Your task to perform on an android device: make emails show in primary in the gmail app Image 0: 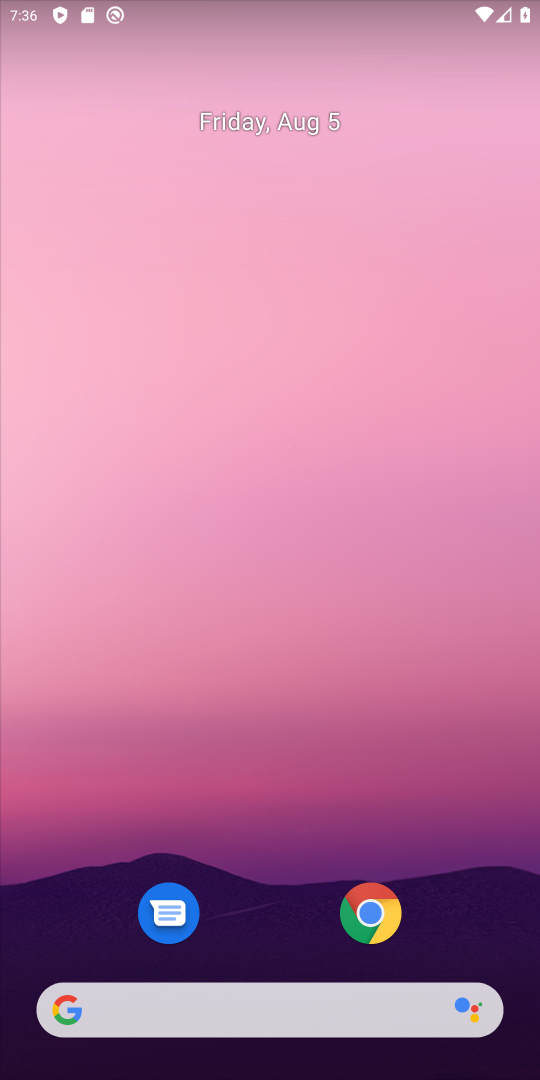
Step 0: press home button
Your task to perform on an android device: make emails show in primary in the gmail app Image 1: 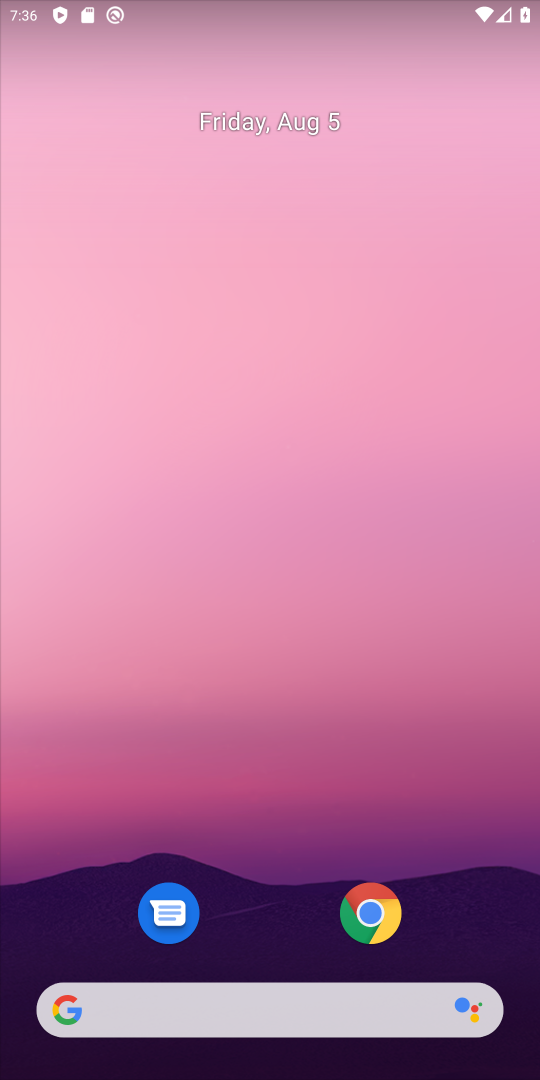
Step 1: drag from (491, 891) to (496, 353)
Your task to perform on an android device: make emails show in primary in the gmail app Image 2: 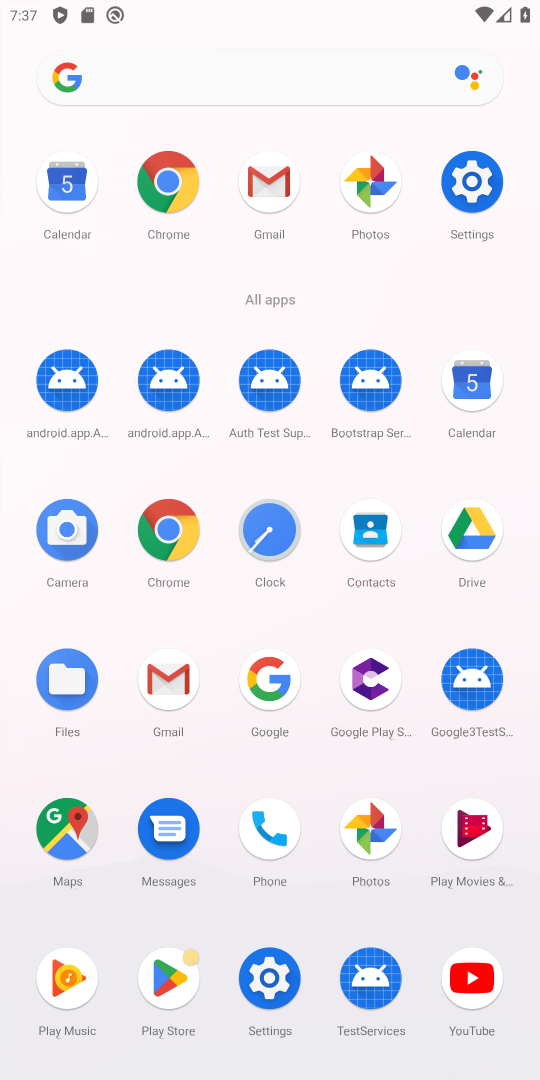
Step 2: click (274, 176)
Your task to perform on an android device: make emails show in primary in the gmail app Image 3: 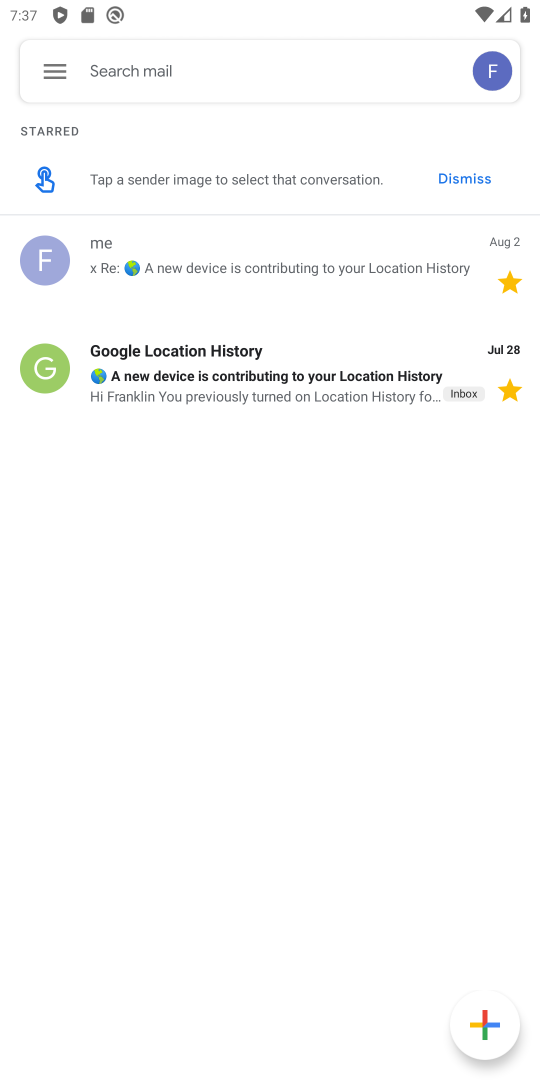
Step 3: click (51, 63)
Your task to perform on an android device: make emails show in primary in the gmail app Image 4: 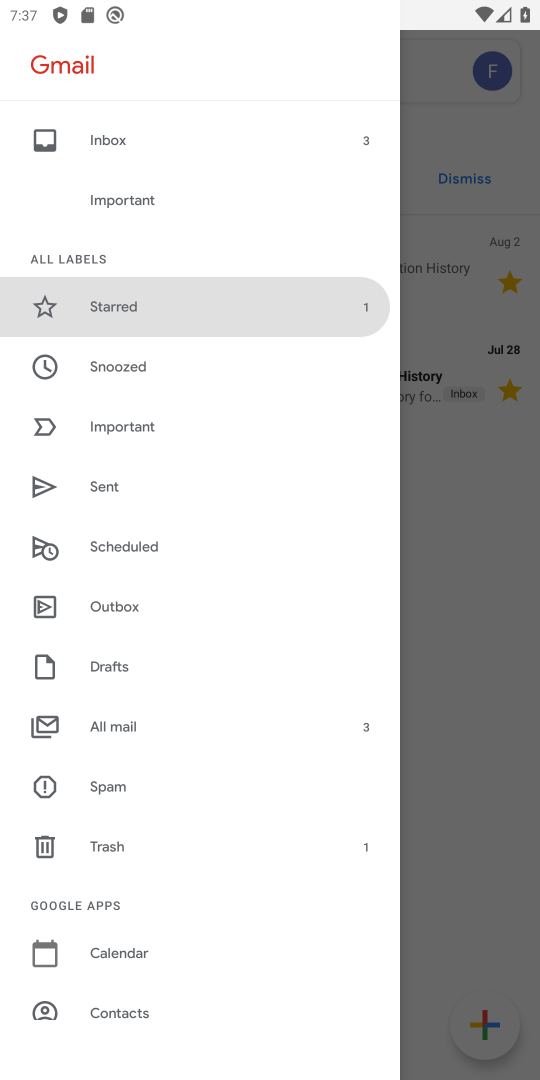
Step 4: drag from (259, 564) to (279, 469)
Your task to perform on an android device: make emails show in primary in the gmail app Image 5: 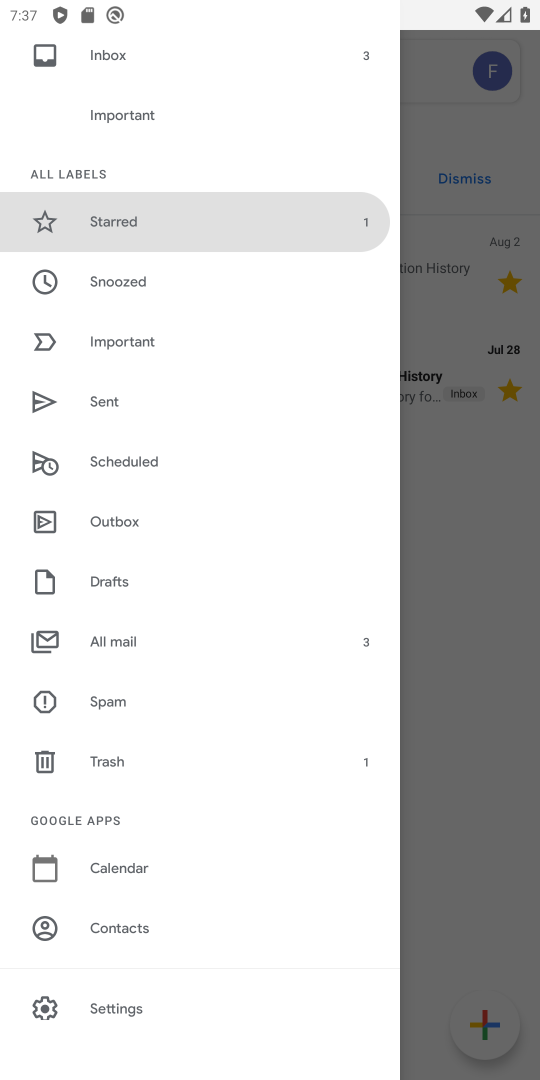
Step 5: drag from (282, 640) to (291, 460)
Your task to perform on an android device: make emails show in primary in the gmail app Image 6: 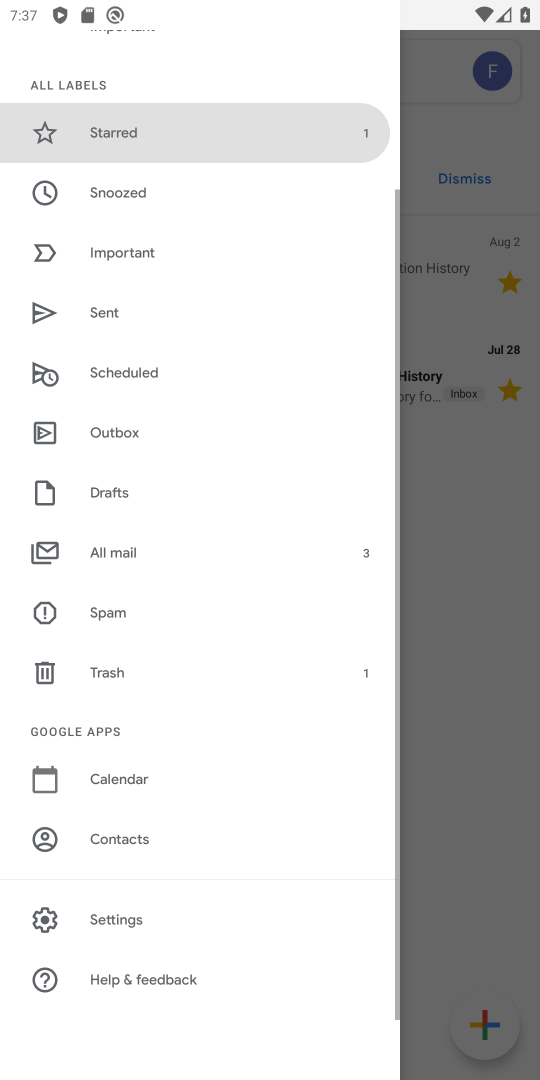
Step 6: drag from (258, 803) to (269, 608)
Your task to perform on an android device: make emails show in primary in the gmail app Image 7: 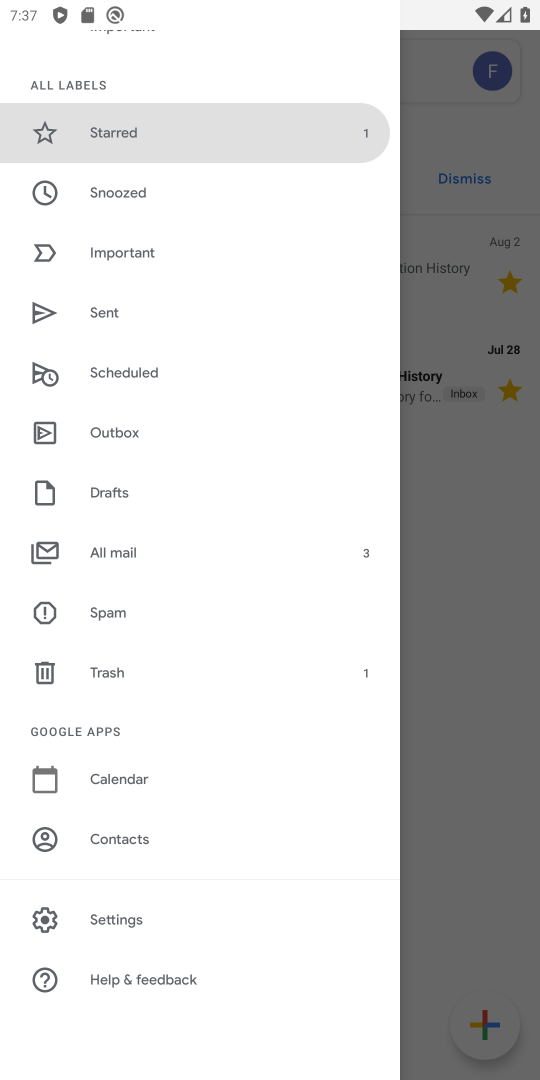
Step 7: click (224, 921)
Your task to perform on an android device: make emails show in primary in the gmail app Image 8: 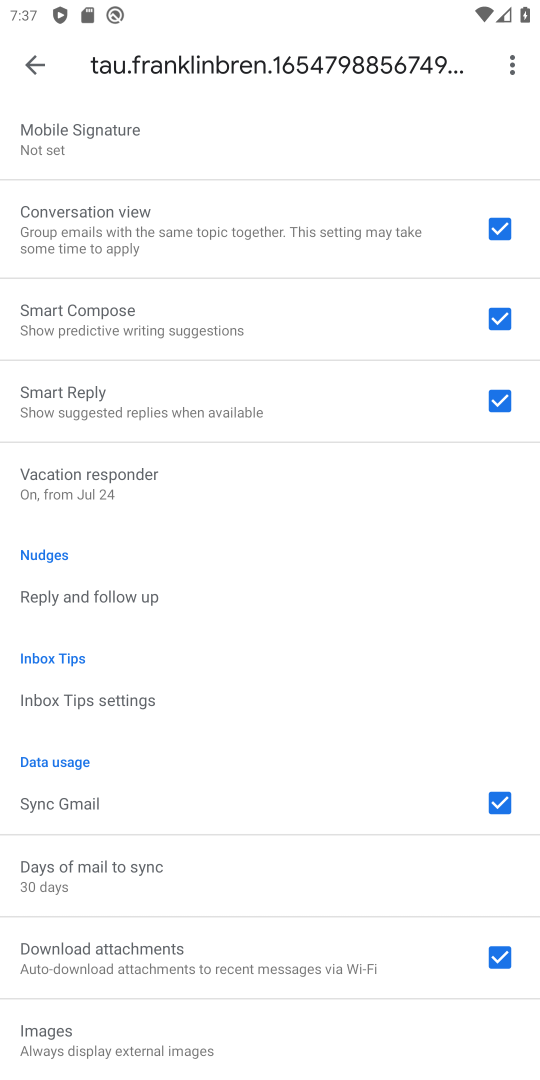
Step 8: drag from (276, 792) to (300, 597)
Your task to perform on an android device: make emails show in primary in the gmail app Image 9: 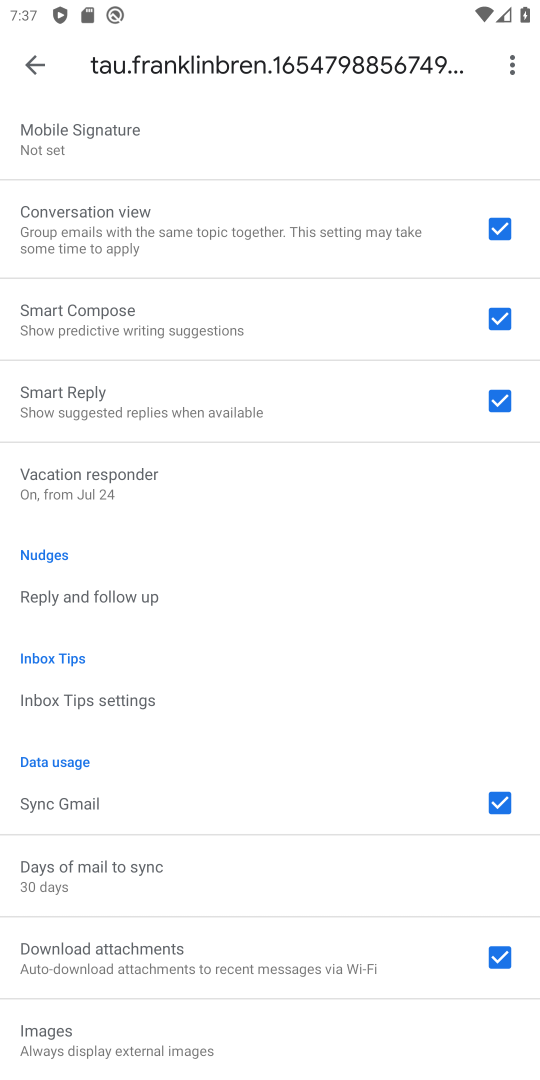
Step 9: drag from (353, 353) to (358, 533)
Your task to perform on an android device: make emails show in primary in the gmail app Image 10: 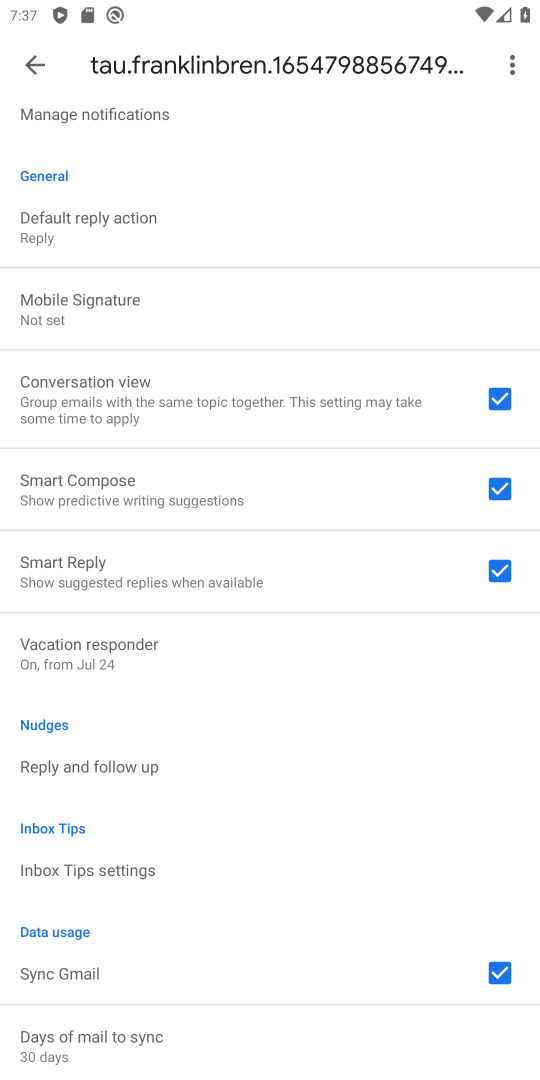
Step 10: drag from (422, 280) to (422, 483)
Your task to perform on an android device: make emails show in primary in the gmail app Image 11: 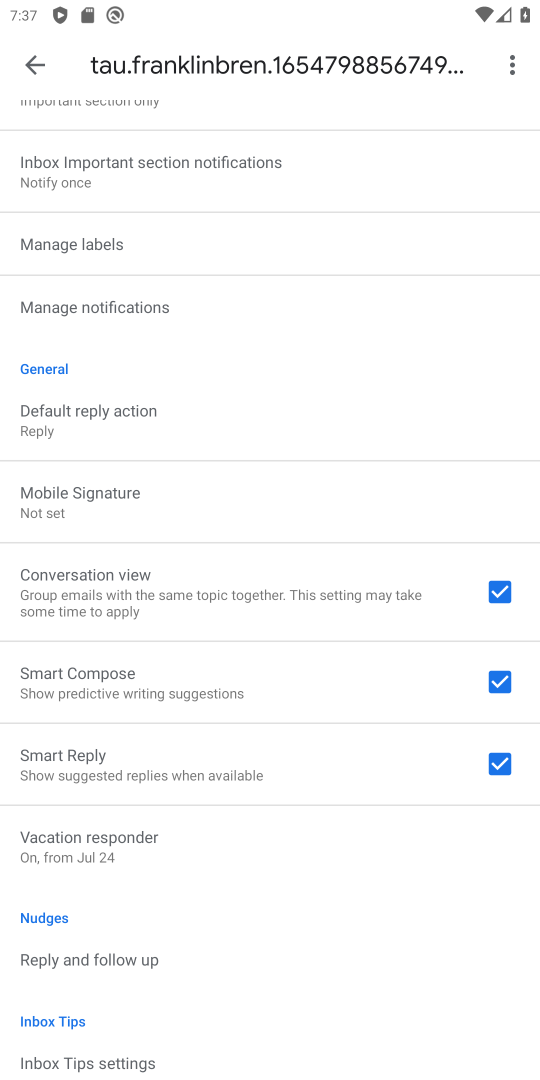
Step 11: drag from (424, 222) to (414, 412)
Your task to perform on an android device: make emails show in primary in the gmail app Image 12: 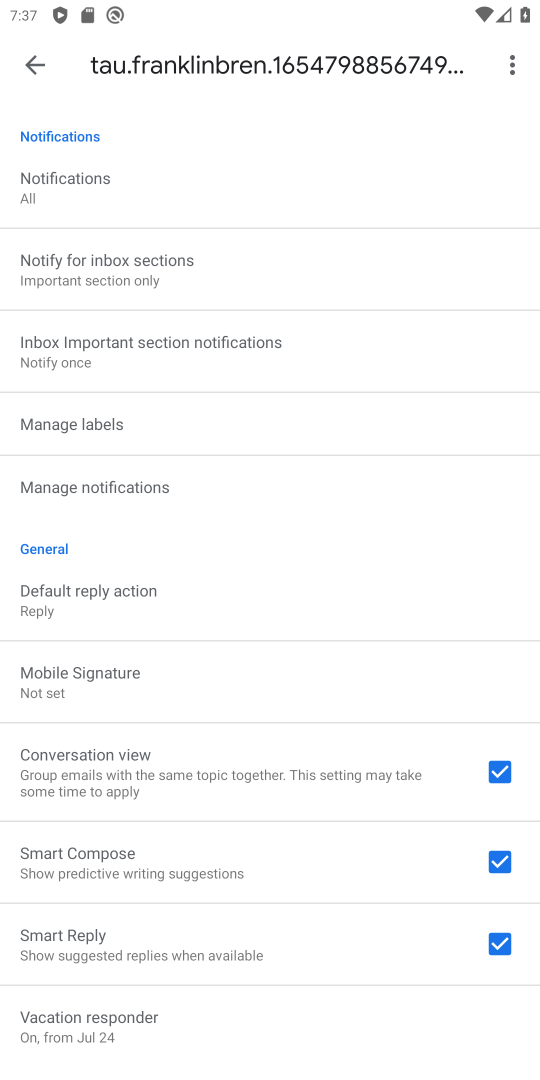
Step 12: drag from (404, 195) to (407, 402)
Your task to perform on an android device: make emails show in primary in the gmail app Image 13: 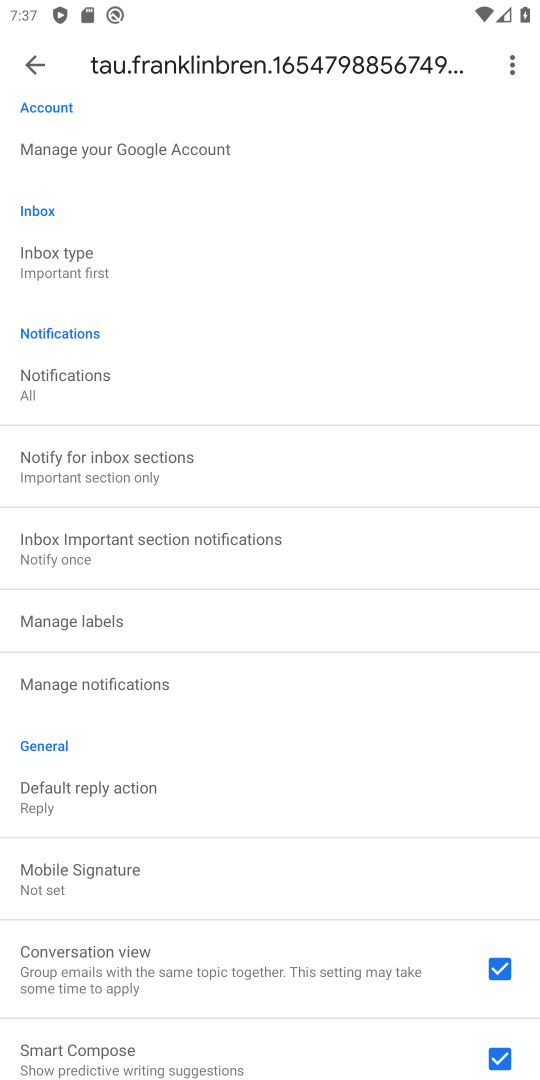
Step 13: drag from (379, 311) to (387, 471)
Your task to perform on an android device: make emails show in primary in the gmail app Image 14: 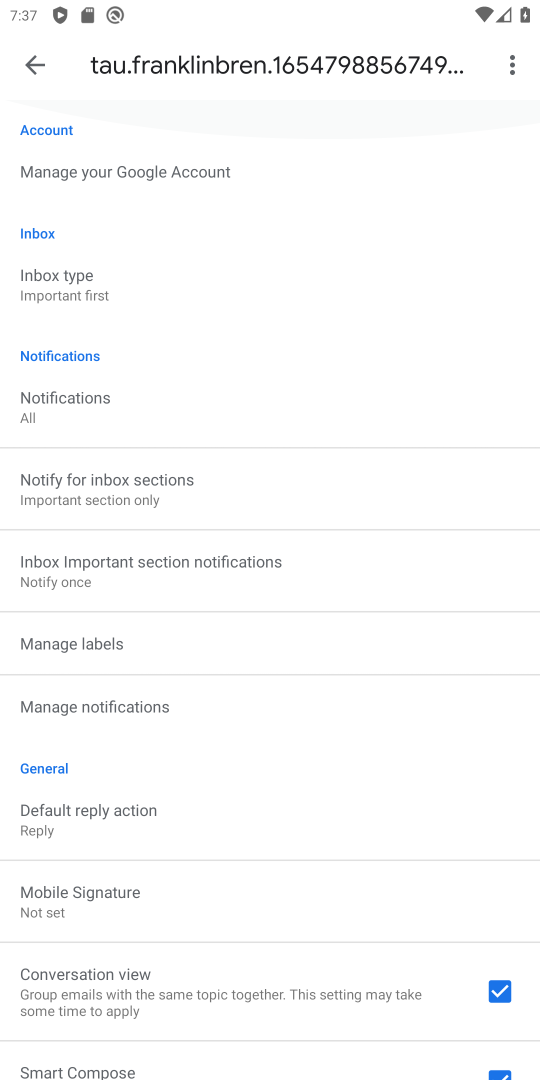
Step 14: click (98, 267)
Your task to perform on an android device: make emails show in primary in the gmail app Image 15: 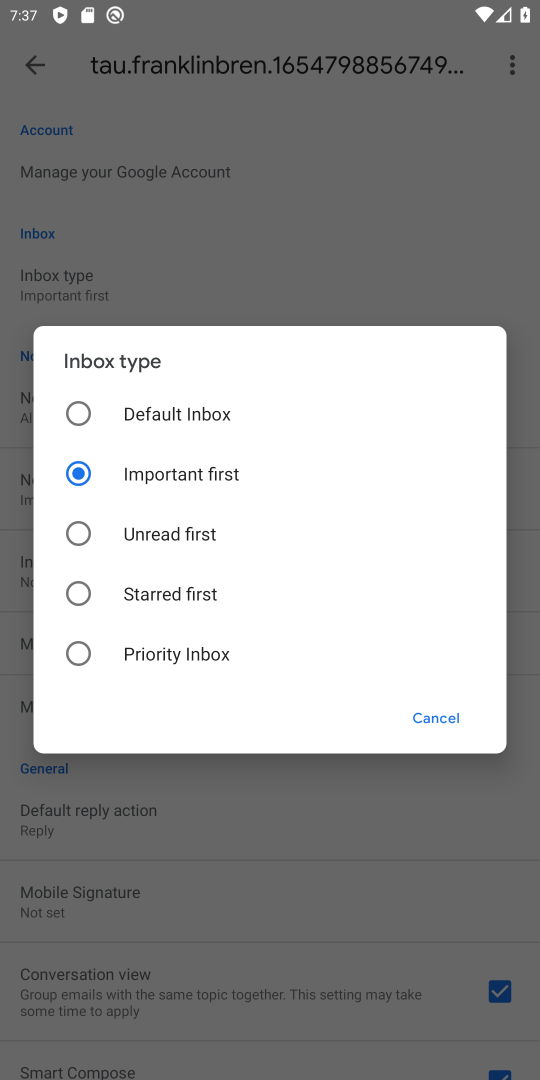
Step 15: click (226, 410)
Your task to perform on an android device: make emails show in primary in the gmail app Image 16: 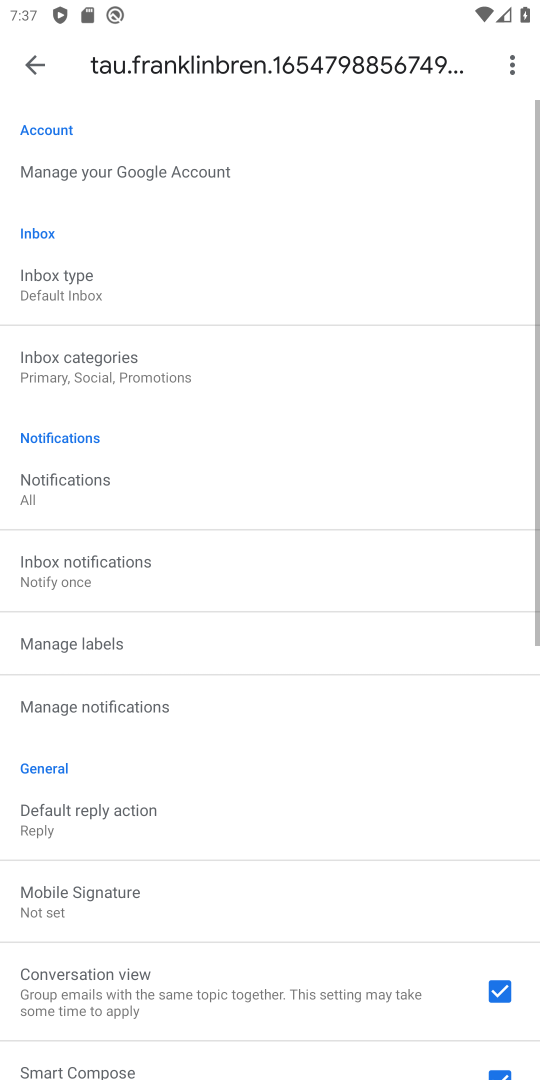
Step 16: click (150, 376)
Your task to perform on an android device: make emails show in primary in the gmail app Image 17: 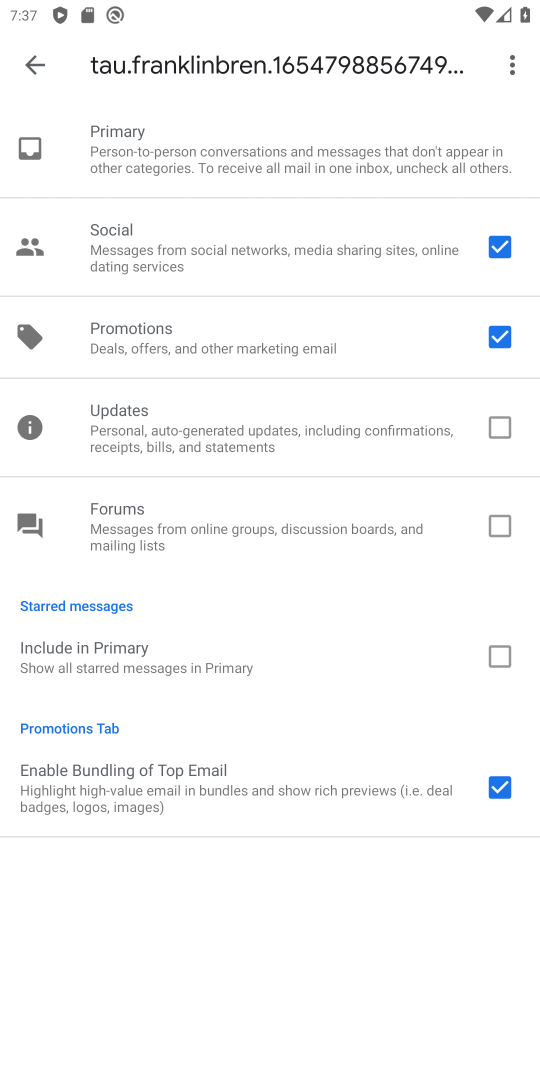
Step 17: click (485, 326)
Your task to perform on an android device: make emails show in primary in the gmail app Image 18: 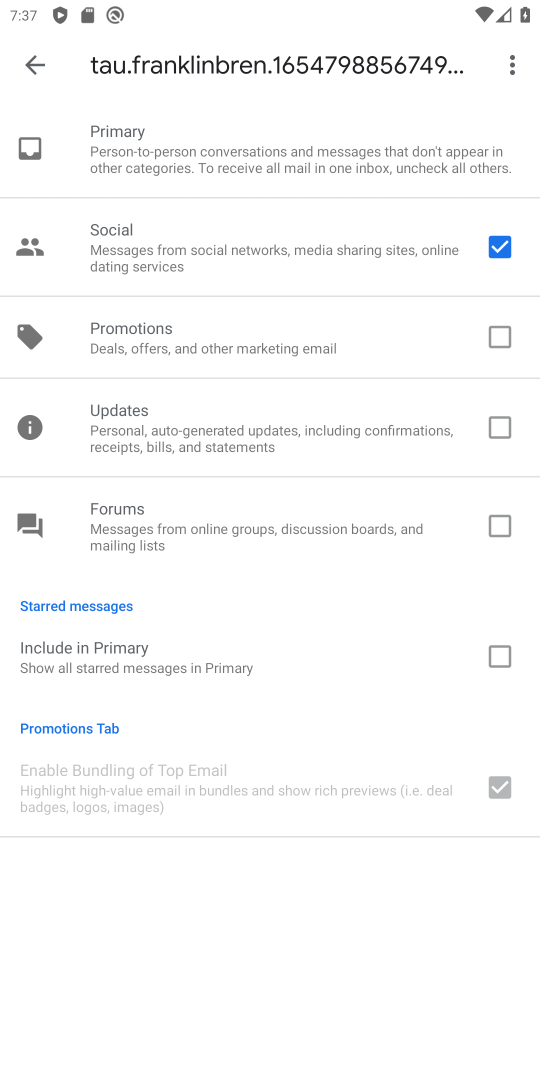
Step 18: click (495, 252)
Your task to perform on an android device: make emails show in primary in the gmail app Image 19: 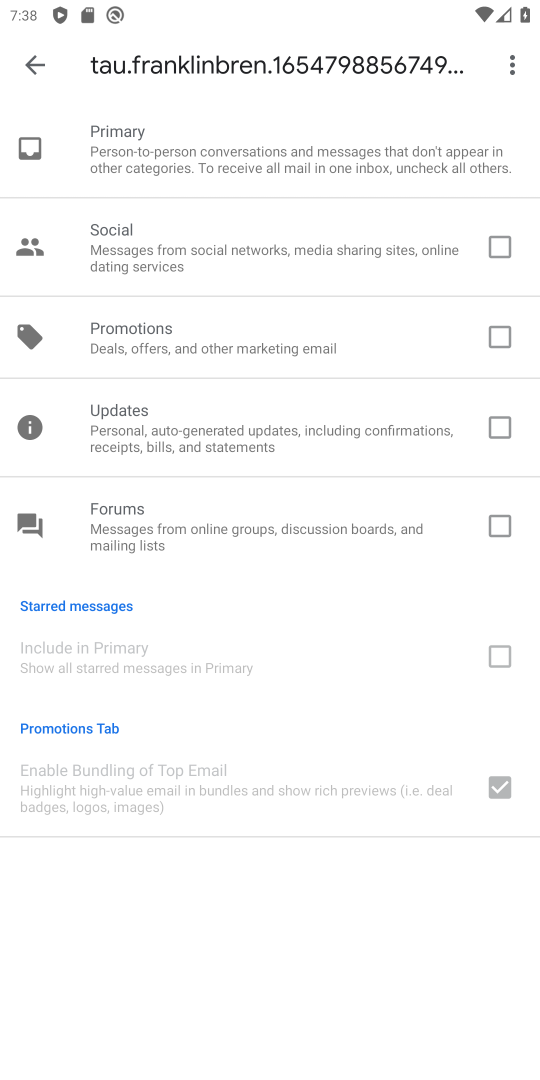
Step 19: task complete